Your task to perform on an android device: Open Android settings Image 0: 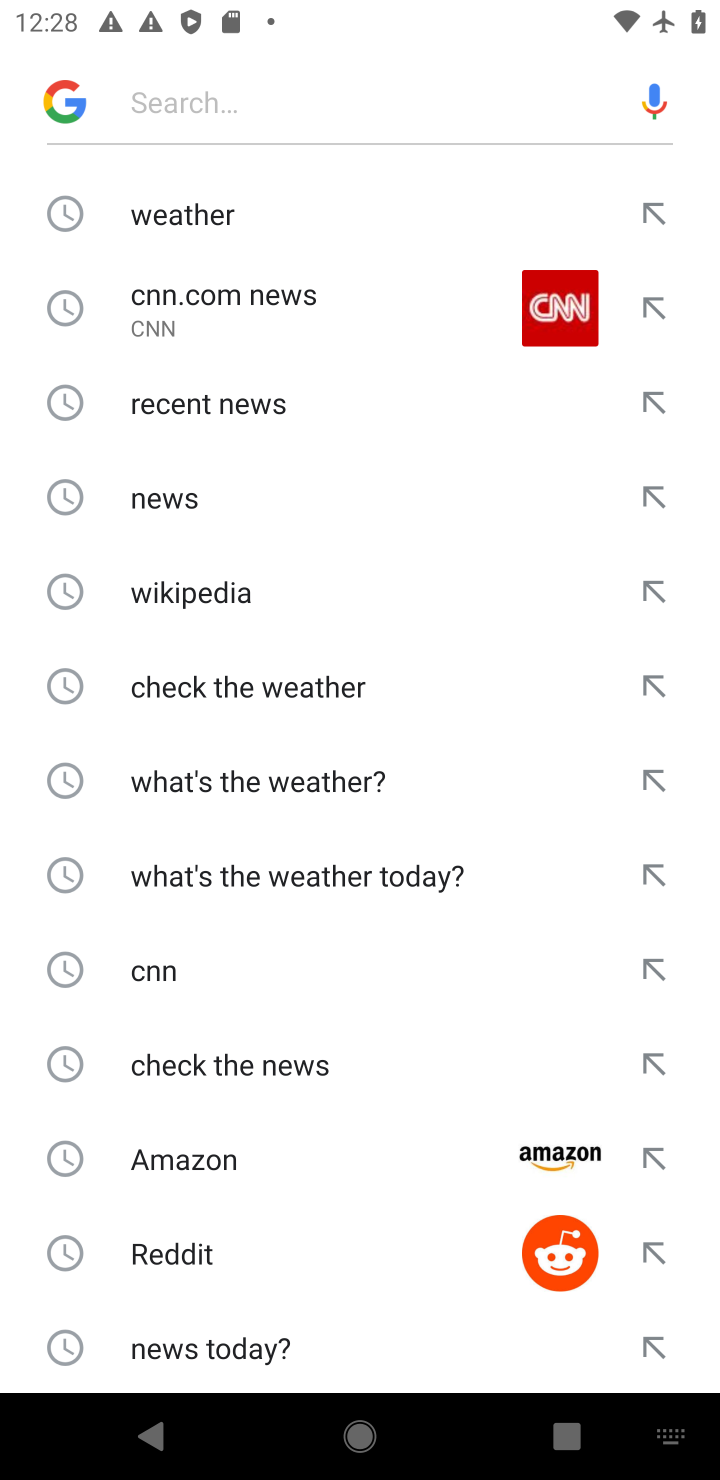
Step 0: task complete